Your task to perform on an android device: Open calendar and show me the first week of next month Image 0: 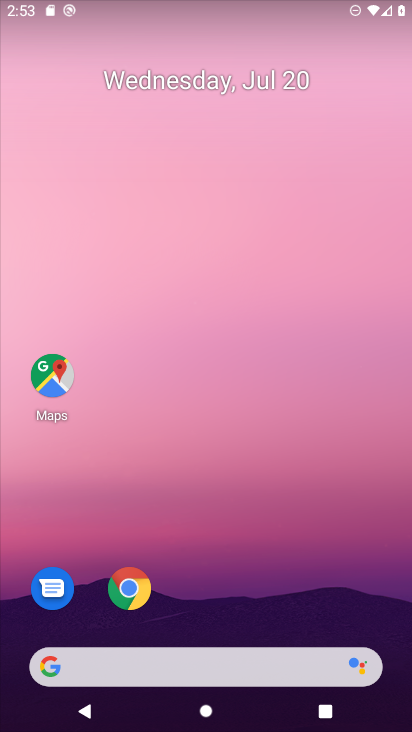
Step 0: drag from (264, 622) to (170, 66)
Your task to perform on an android device: Open calendar and show me the first week of next month Image 1: 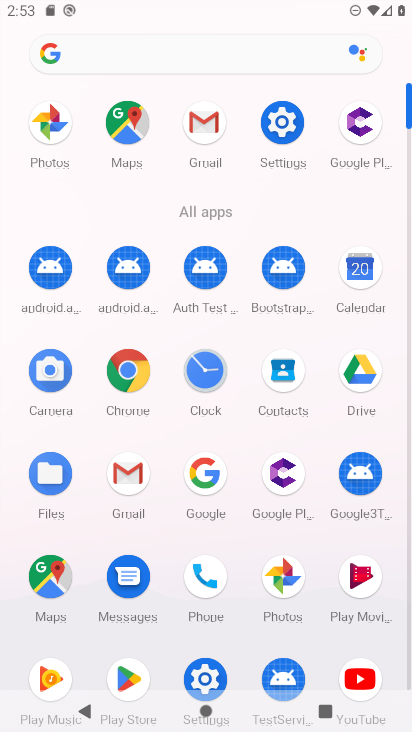
Step 1: click (358, 288)
Your task to perform on an android device: Open calendar and show me the first week of next month Image 2: 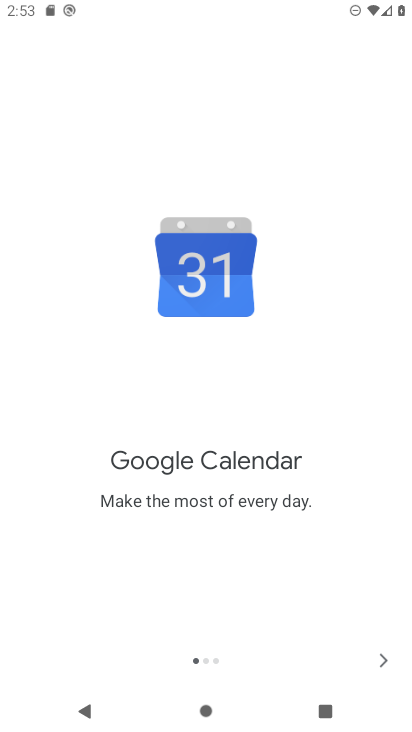
Step 2: click (374, 652)
Your task to perform on an android device: Open calendar and show me the first week of next month Image 3: 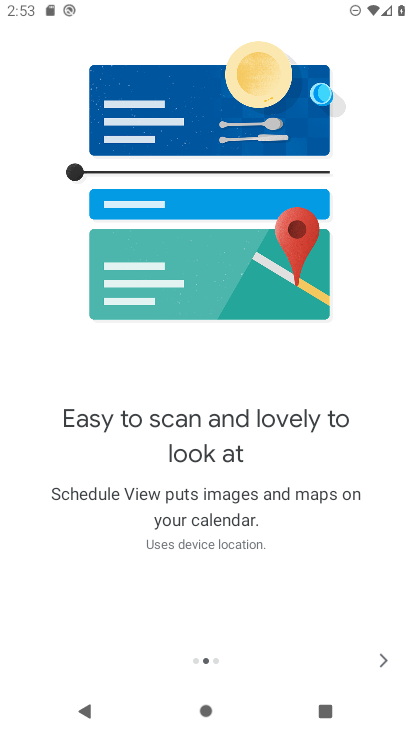
Step 3: click (374, 652)
Your task to perform on an android device: Open calendar and show me the first week of next month Image 4: 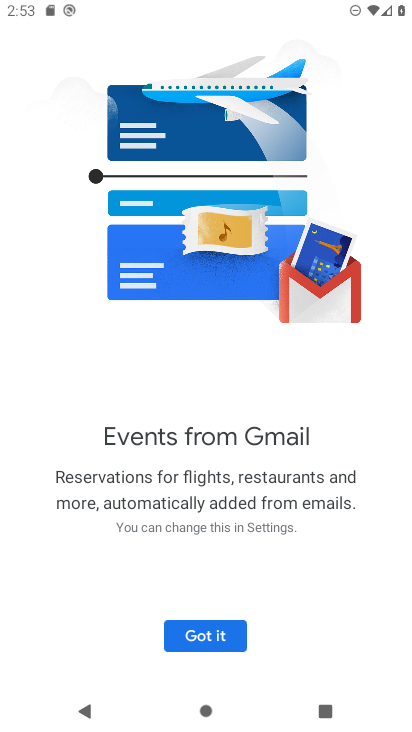
Step 4: click (221, 626)
Your task to perform on an android device: Open calendar and show me the first week of next month Image 5: 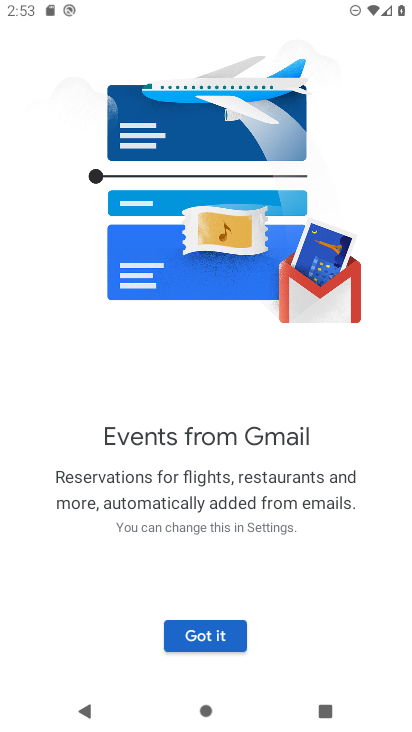
Step 5: click (221, 626)
Your task to perform on an android device: Open calendar and show me the first week of next month Image 6: 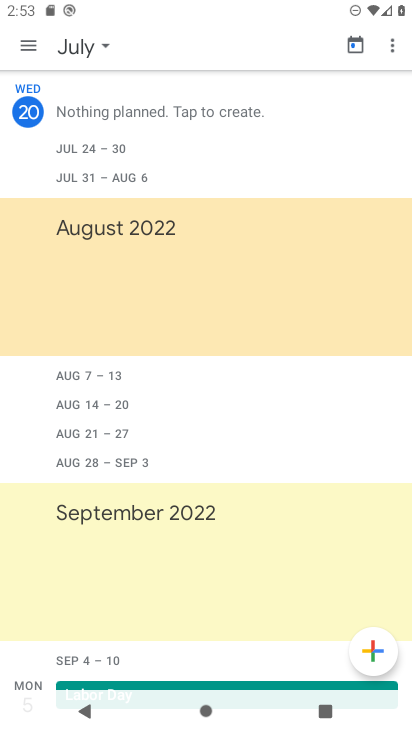
Step 6: click (40, 41)
Your task to perform on an android device: Open calendar and show me the first week of next month Image 7: 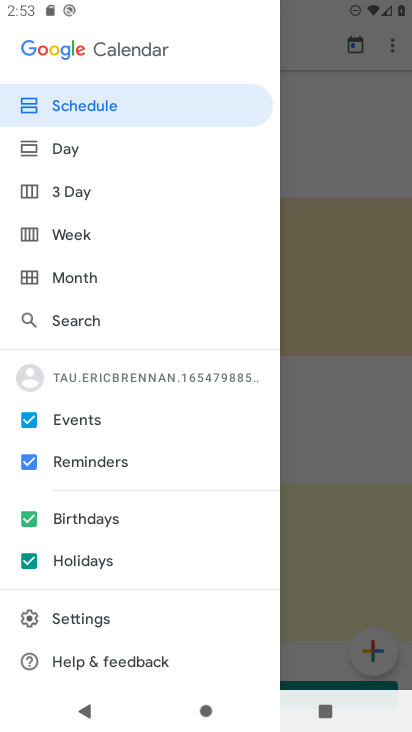
Step 7: click (58, 224)
Your task to perform on an android device: Open calendar and show me the first week of next month Image 8: 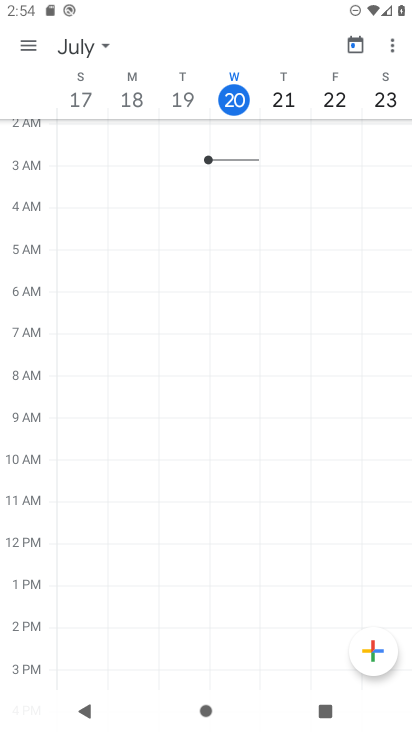
Step 8: drag from (358, 94) to (39, 79)
Your task to perform on an android device: Open calendar and show me the first week of next month Image 9: 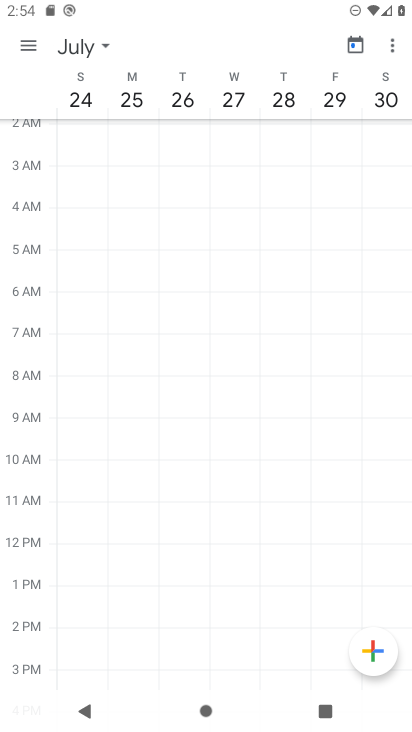
Step 9: drag from (373, 104) to (23, 81)
Your task to perform on an android device: Open calendar and show me the first week of next month Image 10: 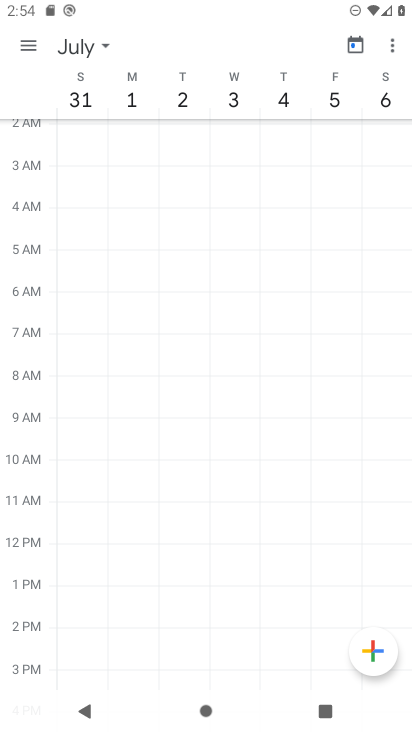
Step 10: press home button
Your task to perform on an android device: Open calendar and show me the first week of next month Image 11: 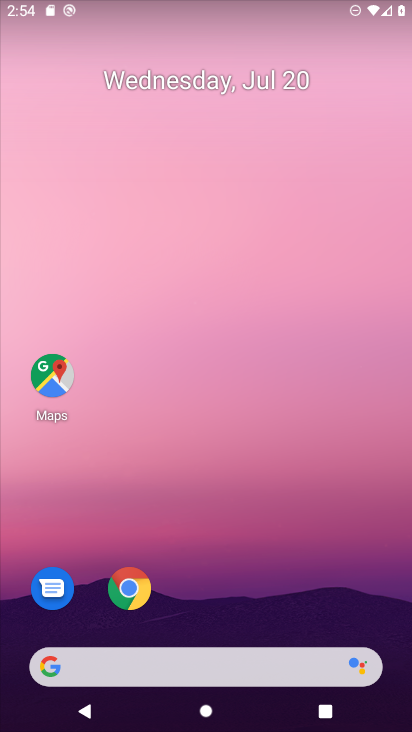
Step 11: drag from (212, 603) to (224, 8)
Your task to perform on an android device: Open calendar and show me the first week of next month Image 12: 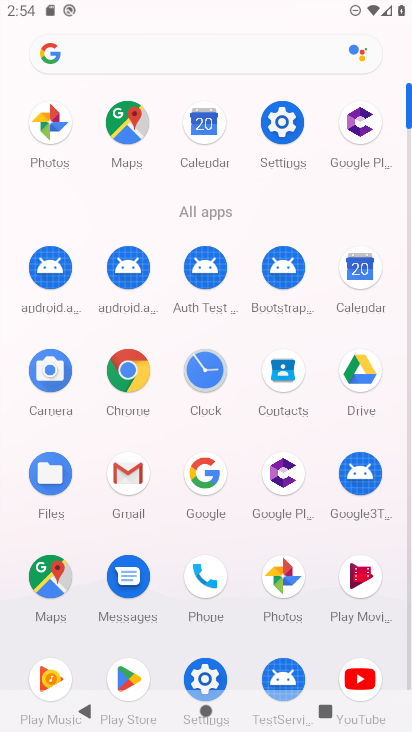
Step 12: click (363, 285)
Your task to perform on an android device: Open calendar and show me the first week of next month Image 13: 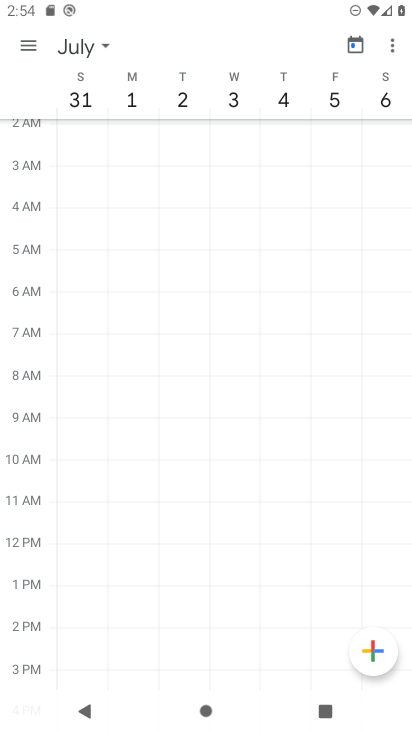
Step 13: task complete